Your task to perform on an android device: Show me productivity apps on the Play Store Image 0: 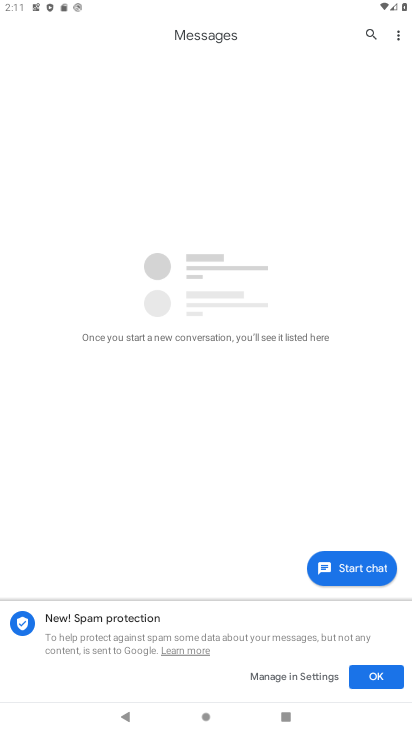
Step 0: press home button
Your task to perform on an android device: Show me productivity apps on the Play Store Image 1: 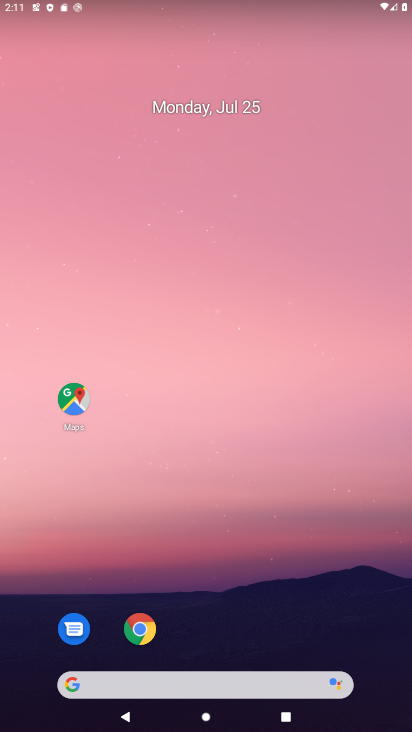
Step 1: drag from (28, 668) to (239, 24)
Your task to perform on an android device: Show me productivity apps on the Play Store Image 2: 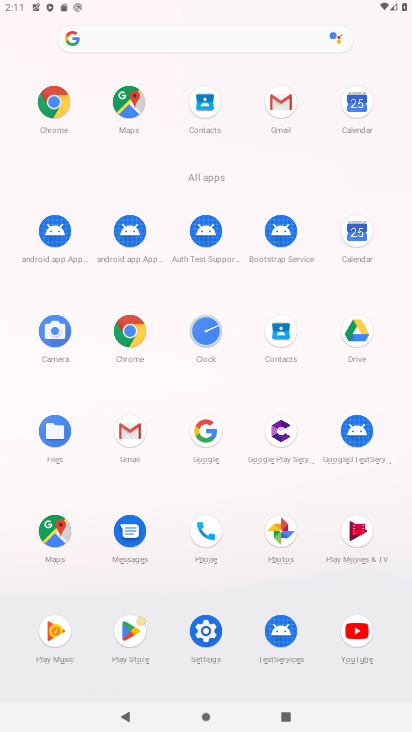
Step 2: click (129, 631)
Your task to perform on an android device: Show me productivity apps on the Play Store Image 3: 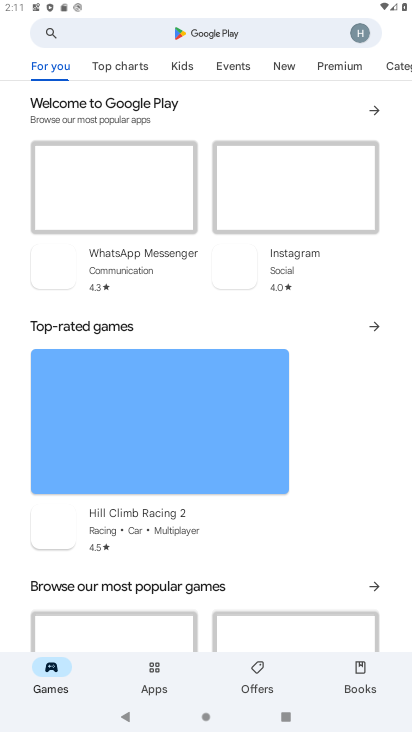
Step 3: click (122, 29)
Your task to perform on an android device: Show me productivity apps on the Play Store Image 4: 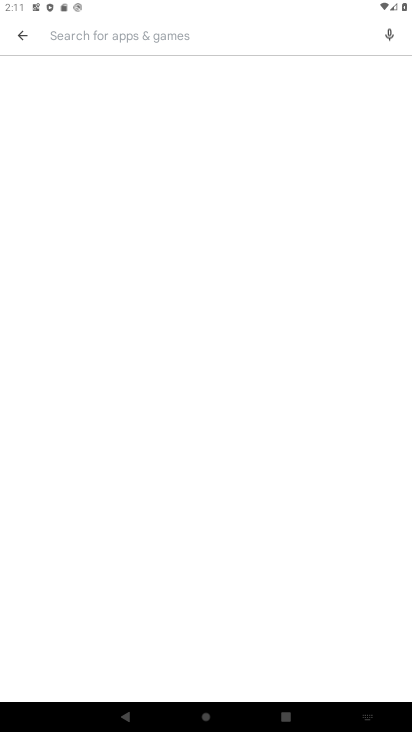
Step 4: click (83, 30)
Your task to perform on an android device: Show me productivity apps on the Play Store Image 5: 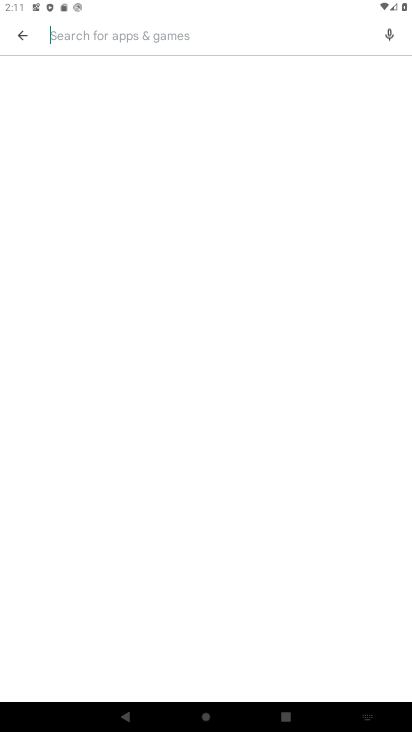
Step 5: type "productivity apps"
Your task to perform on an android device: Show me productivity apps on the Play Store Image 6: 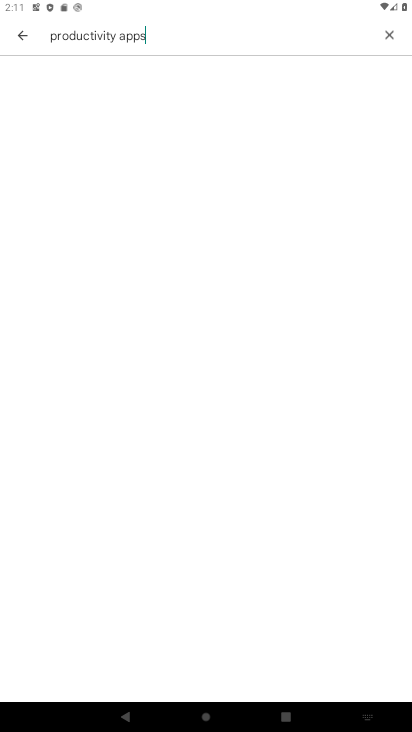
Step 6: type ""
Your task to perform on an android device: Show me productivity apps on the Play Store Image 7: 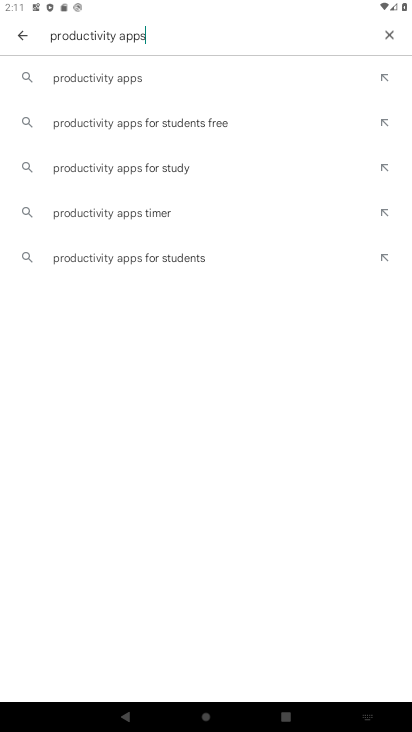
Step 7: click (114, 75)
Your task to perform on an android device: Show me productivity apps on the Play Store Image 8: 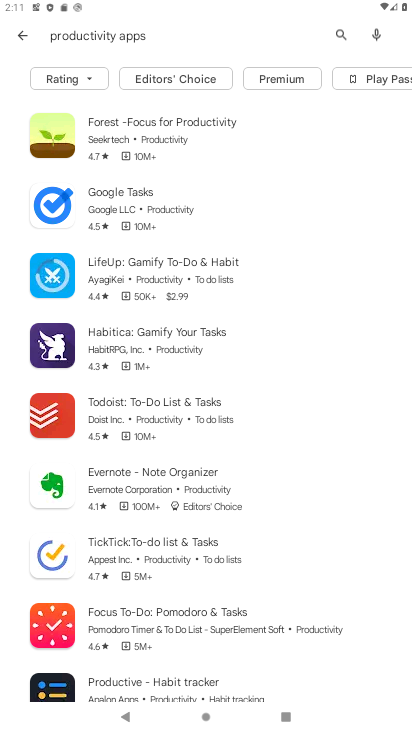
Step 8: task complete